Your task to perform on an android device: install app "Adobe Acrobat Reader: Edit PDF" Image 0: 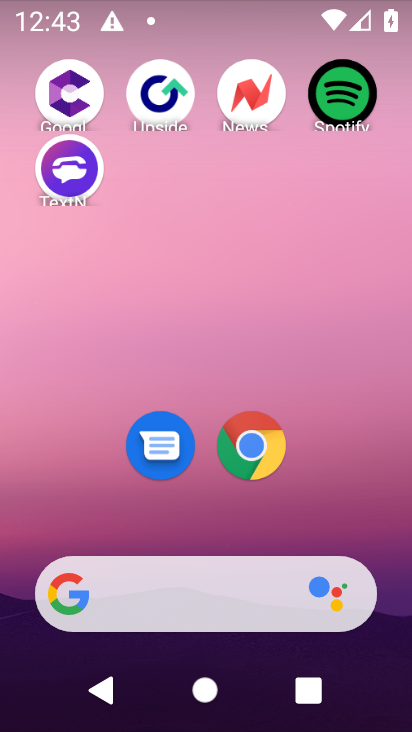
Step 0: click (364, 495)
Your task to perform on an android device: install app "Adobe Acrobat Reader: Edit PDF" Image 1: 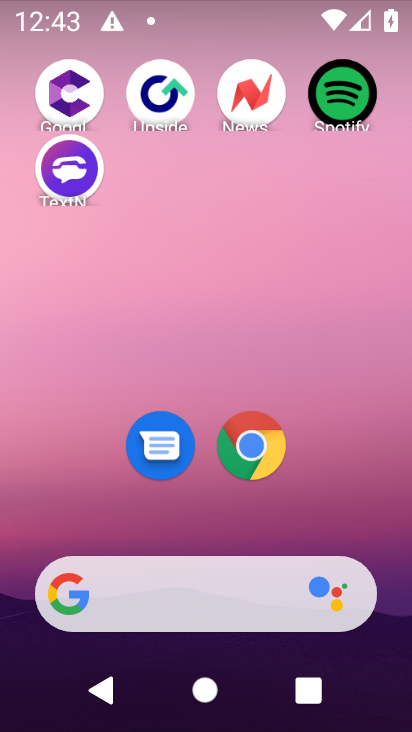
Step 1: drag from (364, 495) to (281, 212)
Your task to perform on an android device: install app "Adobe Acrobat Reader: Edit PDF" Image 2: 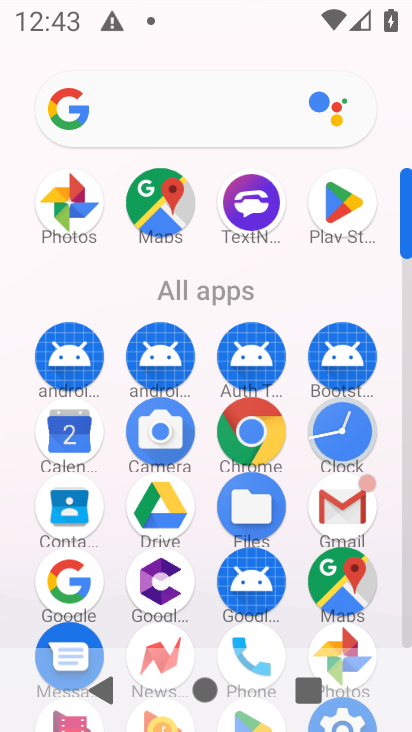
Step 2: click (346, 214)
Your task to perform on an android device: install app "Adobe Acrobat Reader: Edit PDF" Image 3: 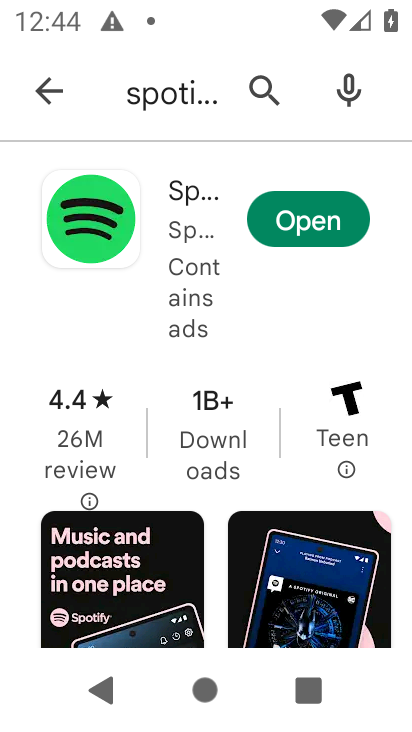
Step 3: click (274, 108)
Your task to perform on an android device: install app "Adobe Acrobat Reader: Edit PDF" Image 4: 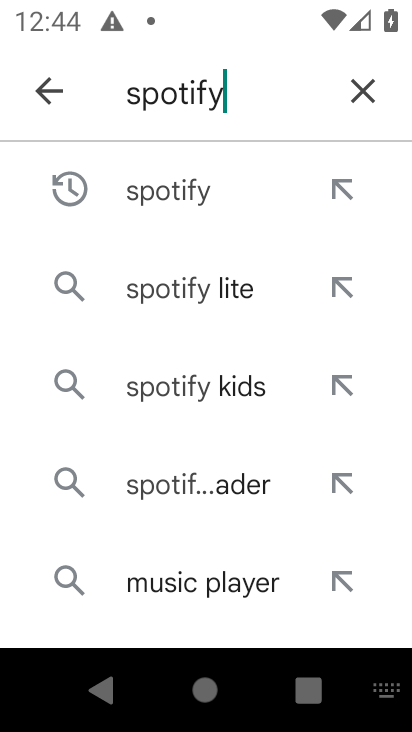
Step 4: click (374, 75)
Your task to perform on an android device: install app "Adobe Acrobat Reader: Edit PDF" Image 5: 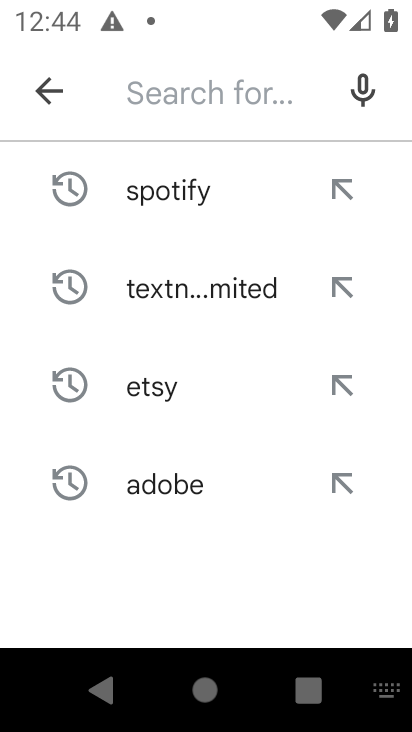
Step 5: type "adobe"
Your task to perform on an android device: install app "Adobe Acrobat Reader: Edit PDF" Image 6: 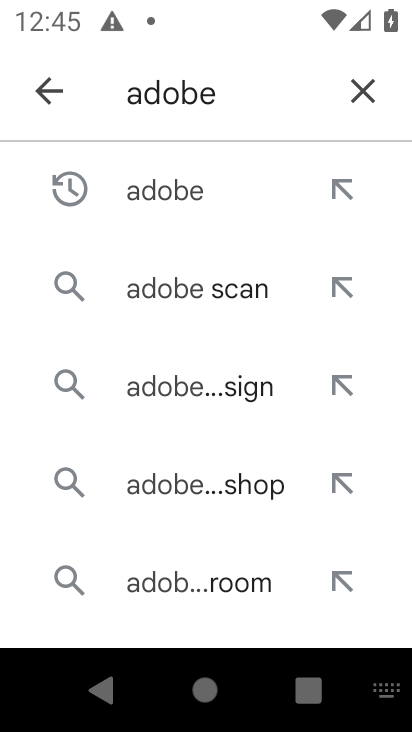
Step 6: type " acrobat"
Your task to perform on an android device: install app "Adobe Acrobat Reader: Edit PDF" Image 7: 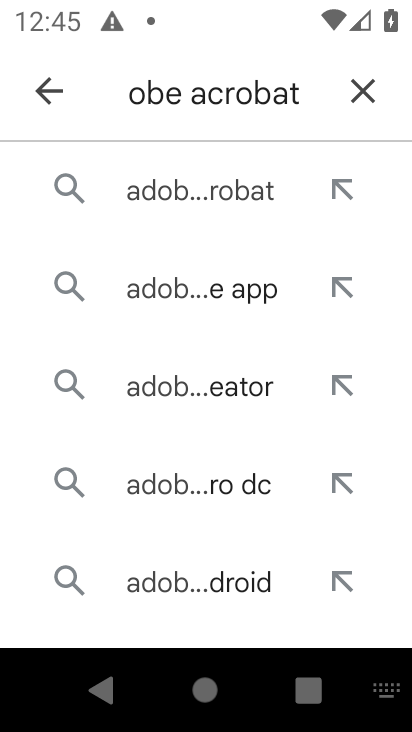
Step 7: click (221, 184)
Your task to perform on an android device: install app "Adobe Acrobat Reader: Edit PDF" Image 8: 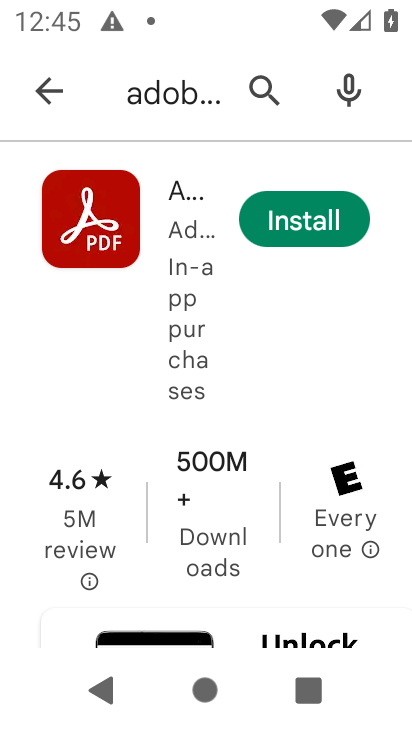
Step 8: click (270, 212)
Your task to perform on an android device: install app "Adobe Acrobat Reader: Edit PDF" Image 9: 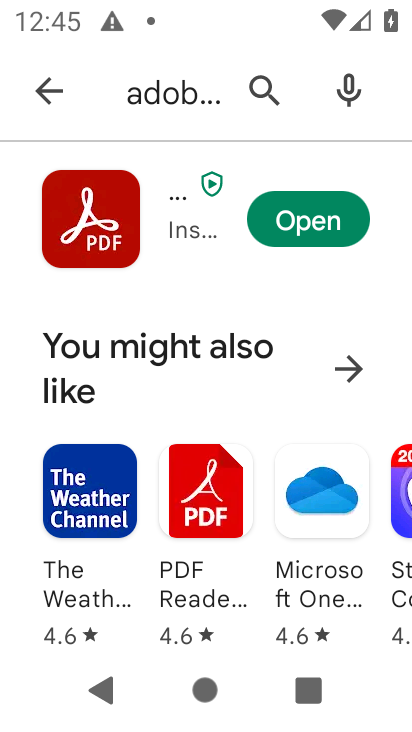
Step 9: task complete